Your task to perform on an android device: turn smart compose on in the gmail app Image 0: 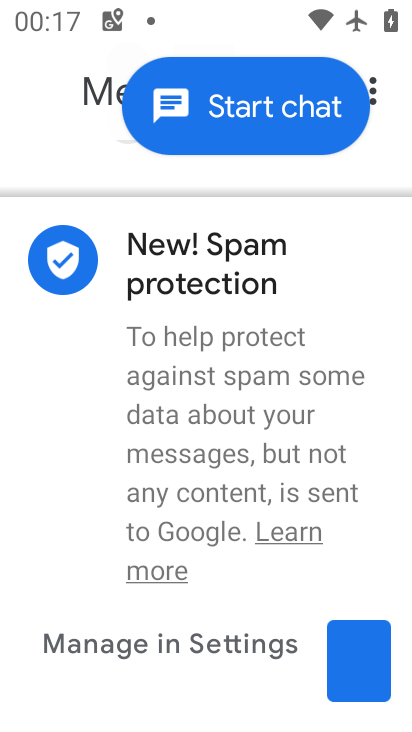
Step 0: press home button
Your task to perform on an android device: turn smart compose on in the gmail app Image 1: 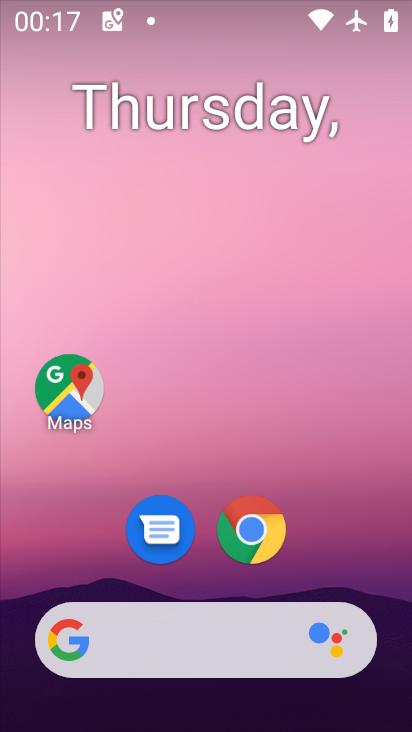
Step 1: drag from (401, 641) to (336, 132)
Your task to perform on an android device: turn smart compose on in the gmail app Image 2: 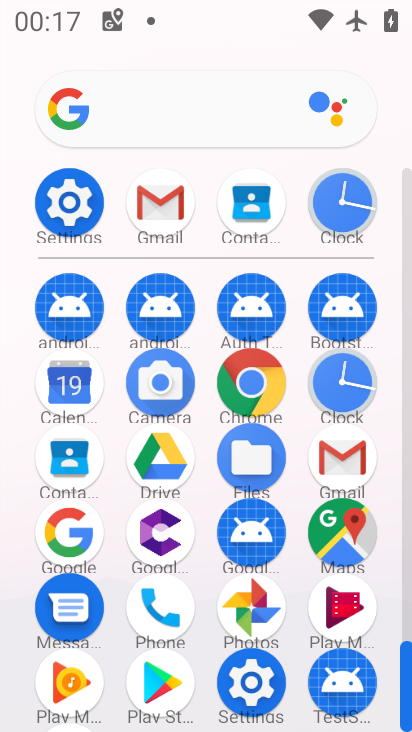
Step 2: click (345, 457)
Your task to perform on an android device: turn smart compose on in the gmail app Image 3: 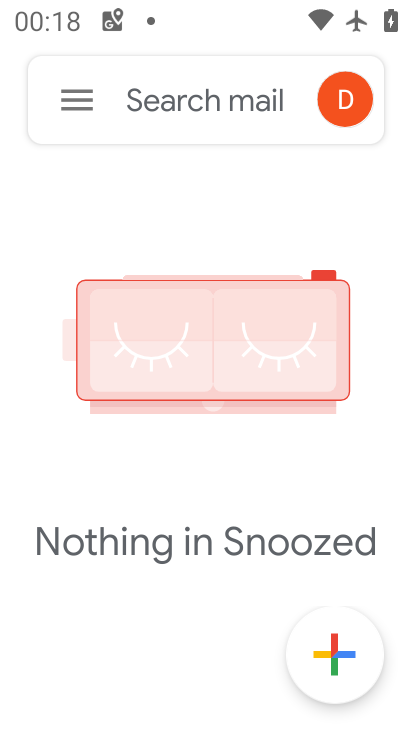
Step 3: click (74, 102)
Your task to perform on an android device: turn smart compose on in the gmail app Image 4: 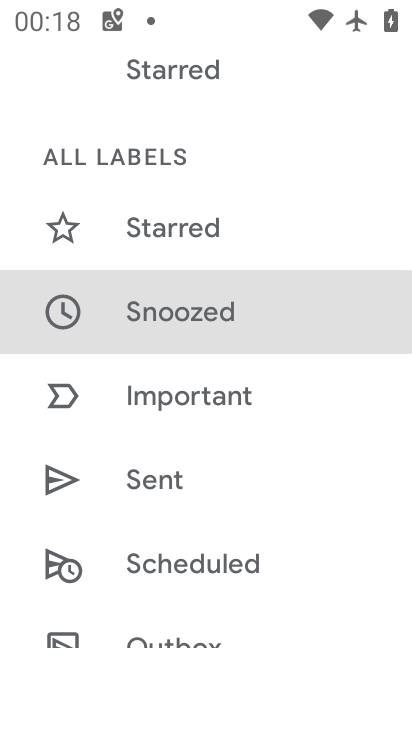
Step 4: drag from (295, 594) to (282, 258)
Your task to perform on an android device: turn smart compose on in the gmail app Image 5: 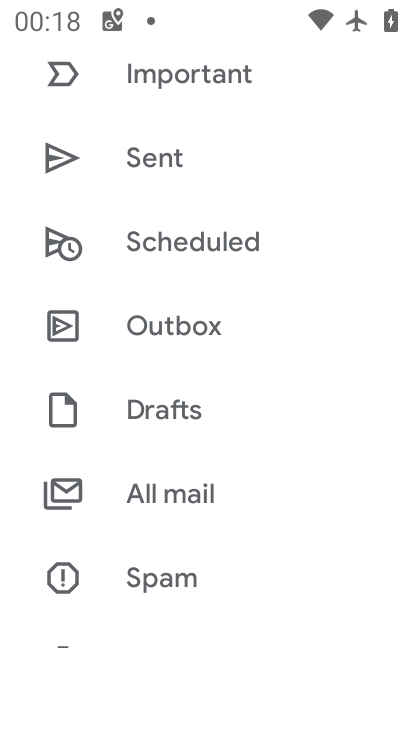
Step 5: drag from (274, 613) to (289, 67)
Your task to perform on an android device: turn smart compose on in the gmail app Image 6: 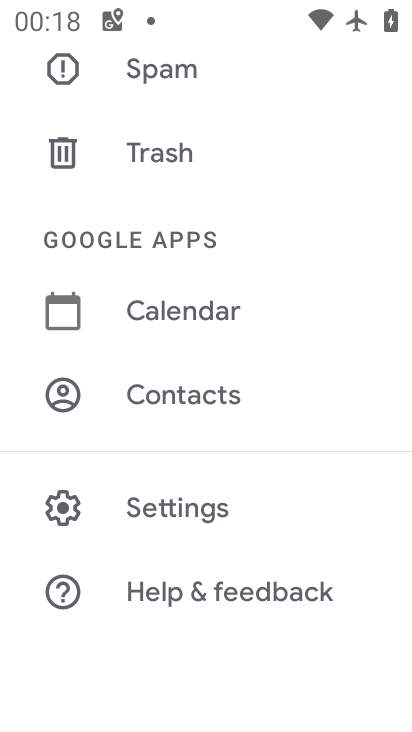
Step 6: click (168, 499)
Your task to perform on an android device: turn smart compose on in the gmail app Image 7: 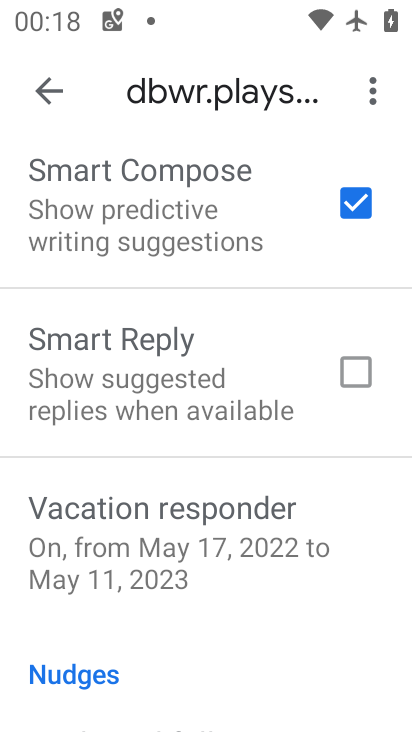
Step 7: task complete